Your task to perform on an android device: change timer sound Image 0: 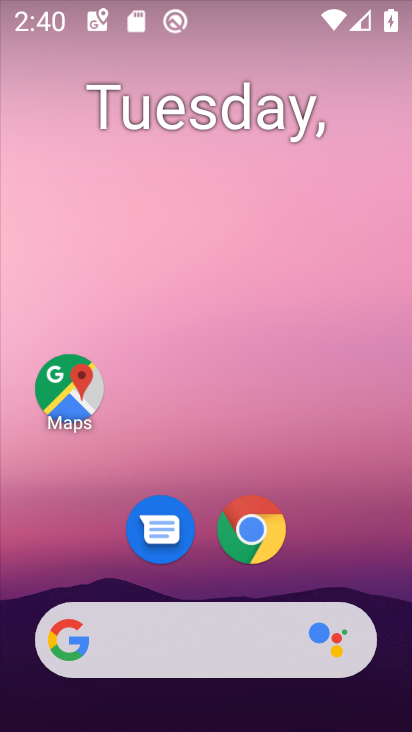
Step 0: click (263, 516)
Your task to perform on an android device: change timer sound Image 1: 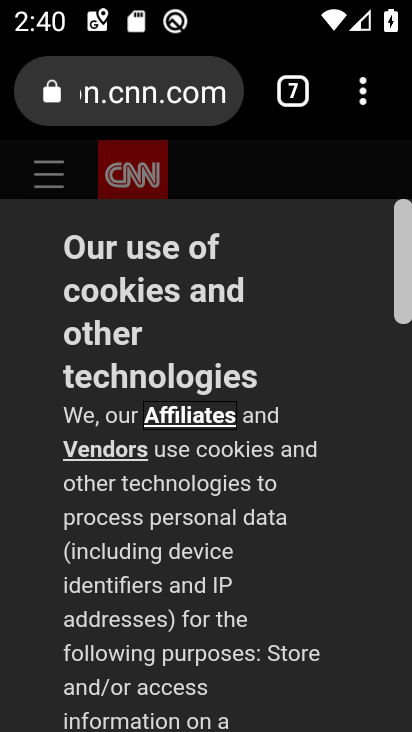
Step 1: press home button
Your task to perform on an android device: change timer sound Image 2: 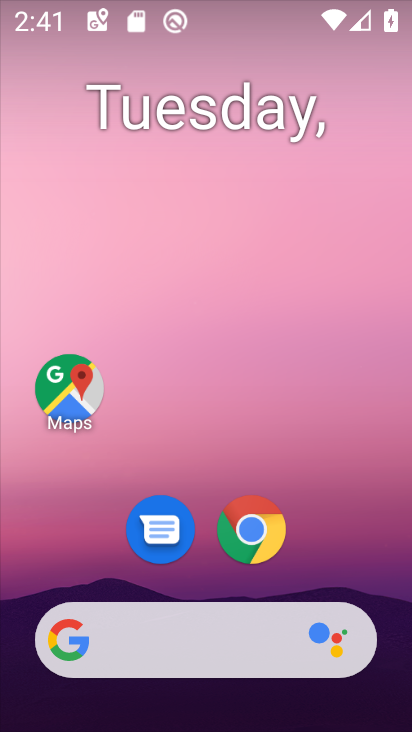
Step 2: drag from (329, 542) to (312, 64)
Your task to perform on an android device: change timer sound Image 3: 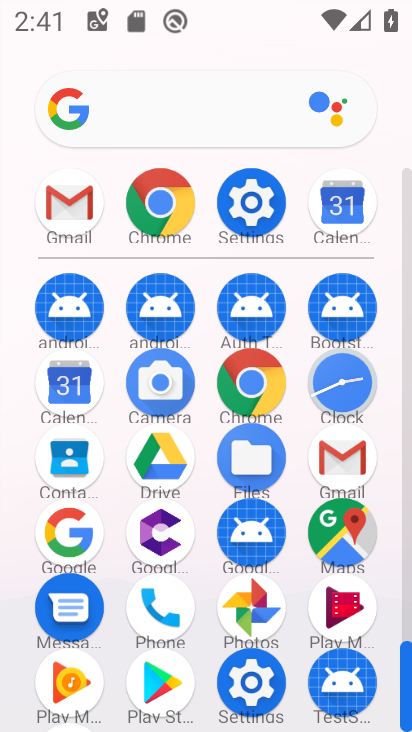
Step 3: click (341, 381)
Your task to perform on an android device: change timer sound Image 4: 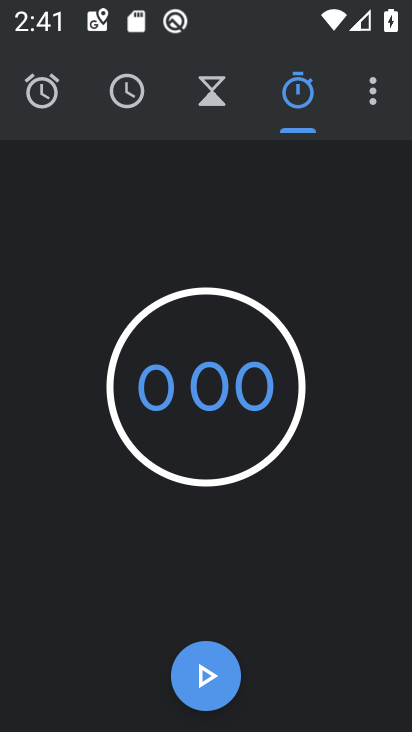
Step 4: click (364, 100)
Your task to perform on an android device: change timer sound Image 5: 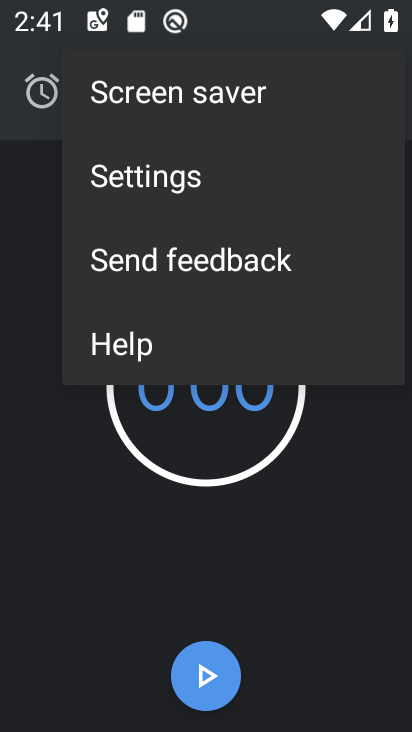
Step 5: click (189, 195)
Your task to perform on an android device: change timer sound Image 6: 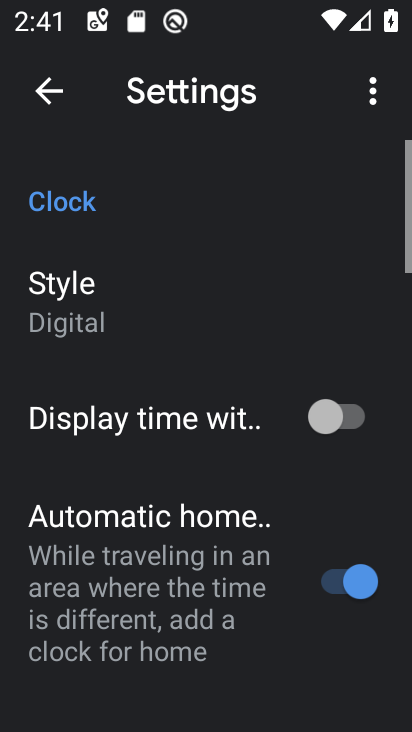
Step 6: drag from (138, 557) to (236, 242)
Your task to perform on an android device: change timer sound Image 7: 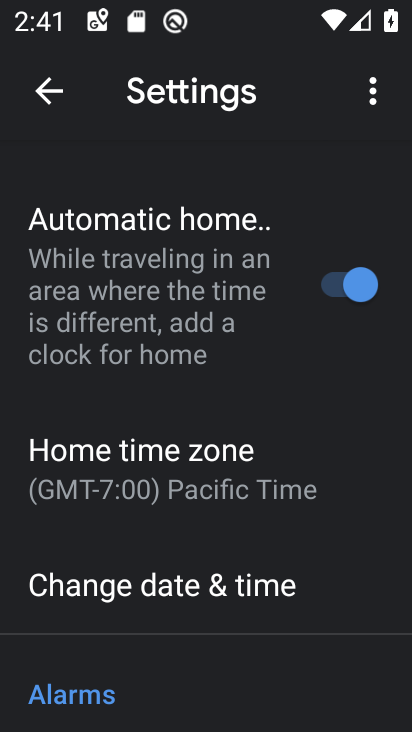
Step 7: drag from (141, 613) to (220, 318)
Your task to perform on an android device: change timer sound Image 8: 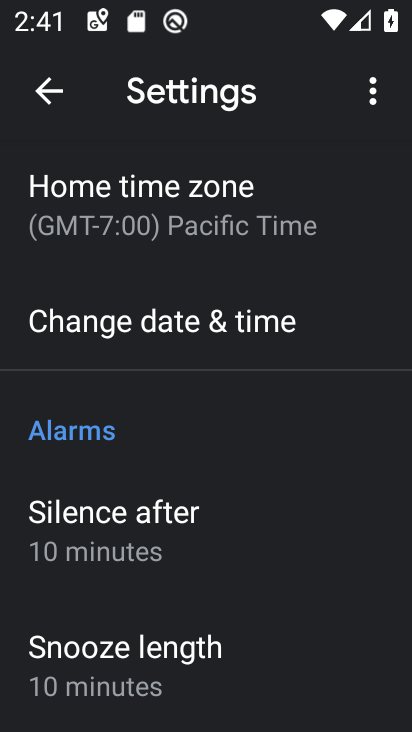
Step 8: drag from (122, 612) to (191, 256)
Your task to perform on an android device: change timer sound Image 9: 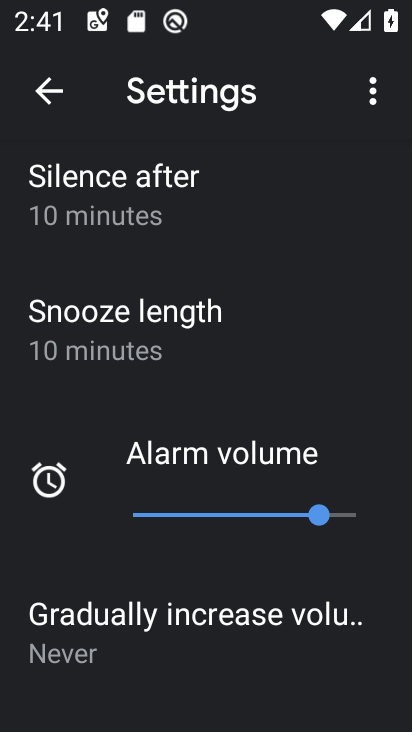
Step 9: drag from (149, 552) to (203, 142)
Your task to perform on an android device: change timer sound Image 10: 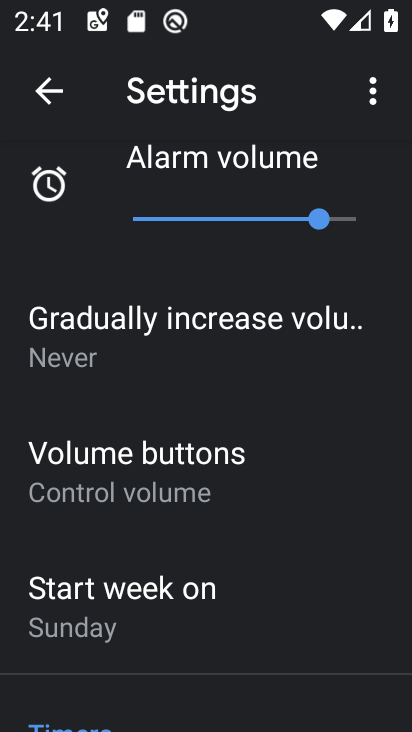
Step 10: drag from (110, 567) to (210, 169)
Your task to perform on an android device: change timer sound Image 11: 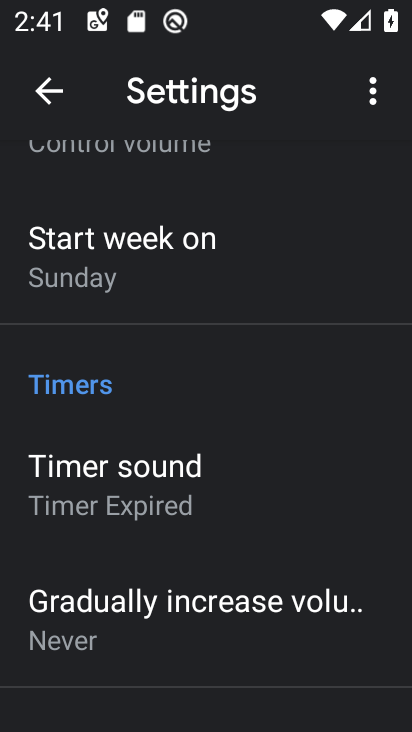
Step 11: click (93, 498)
Your task to perform on an android device: change timer sound Image 12: 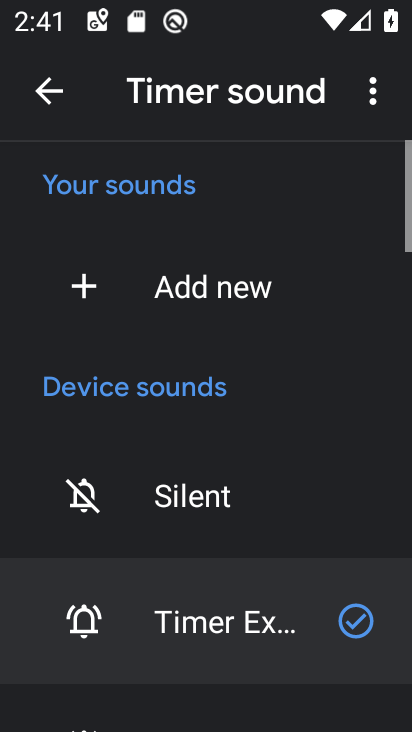
Step 12: click (196, 511)
Your task to perform on an android device: change timer sound Image 13: 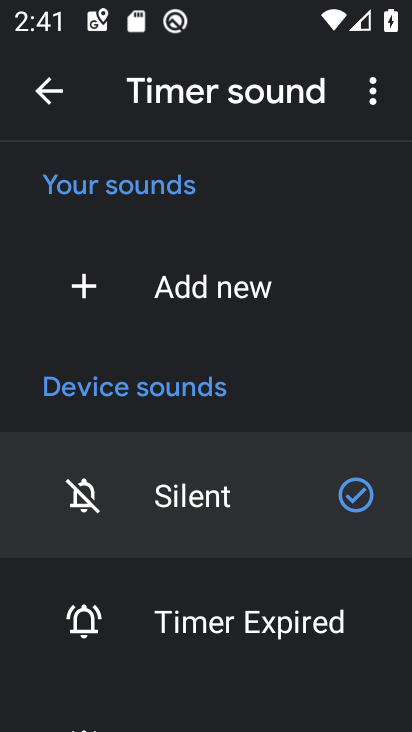
Step 13: task complete